Your task to perform on an android device: check google app version Image 0: 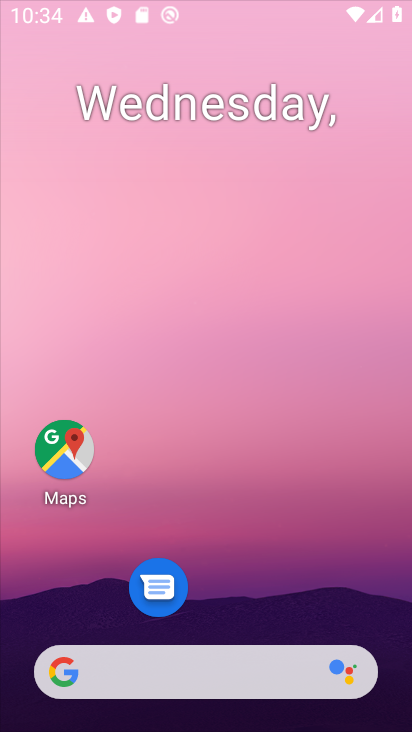
Step 0: press home button
Your task to perform on an android device: check google app version Image 1: 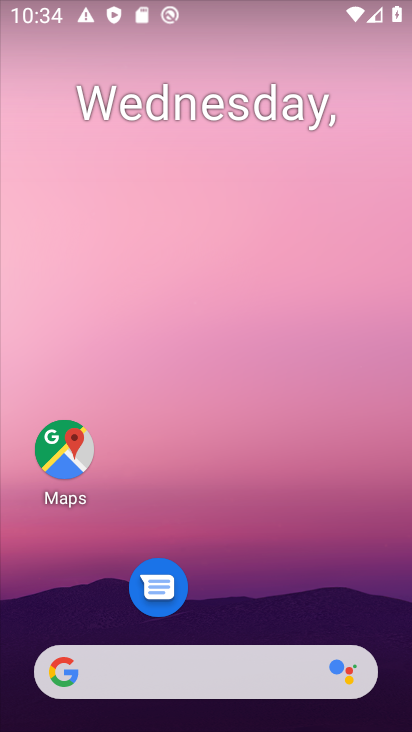
Step 1: drag from (235, 593) to (221, 144)
Your task to perform on an android device: check google app version Image 2: 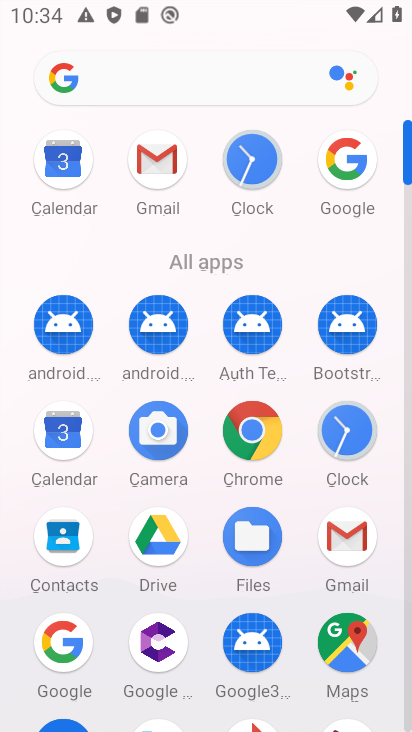
Step 2: click (342, 155)
Your task to perform on an android device: check google app version Image 3: 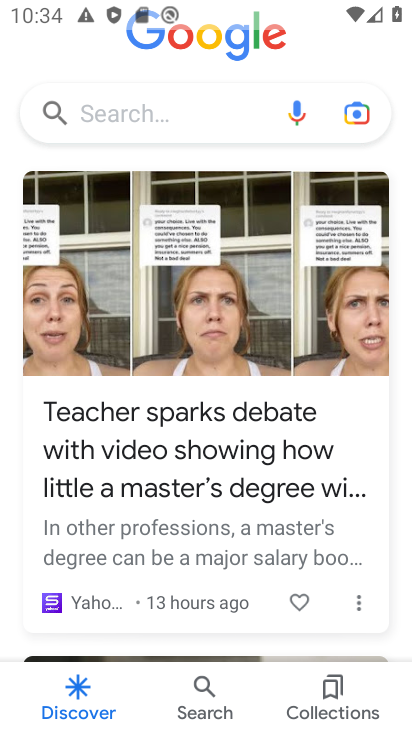
Step 3: drag from (323, 498) to (324, 533)
Your task to perform on an android device: check google app version Image 4: 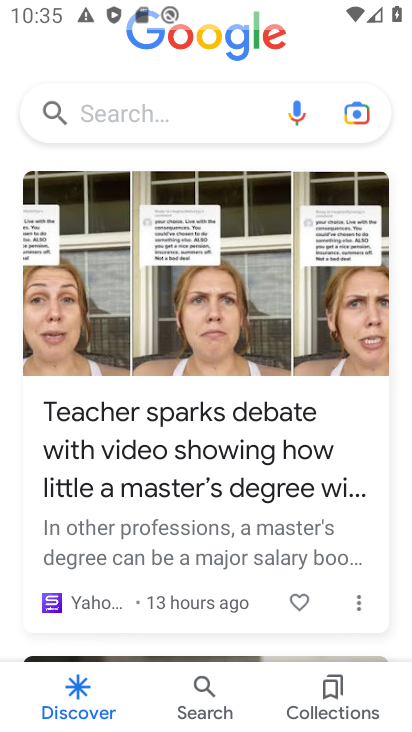
Step 4: drag from (195, 133) to (180, 619)
Your task to perform on an android device: check google app version Image 5: 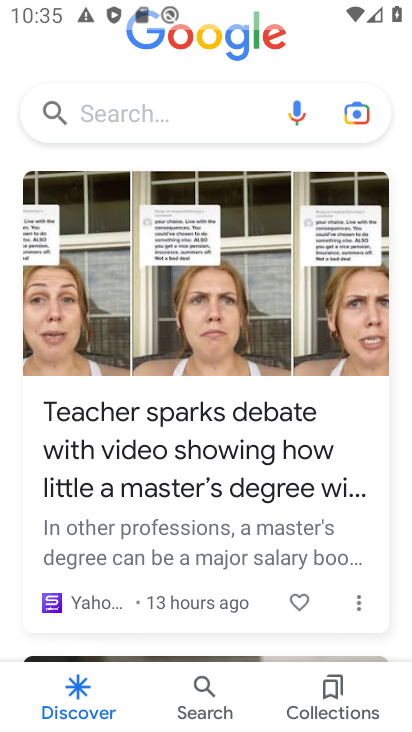
Step 5: drag from (249, 268) to (240, 730)
Your task to perform on an android device: check google app version Image 6: 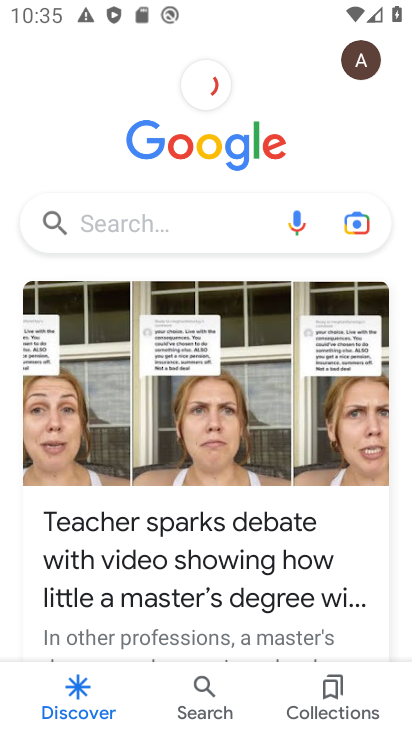
Step 6: click (361, 55)
Your task to perform on an android device: check google app version Image 7: 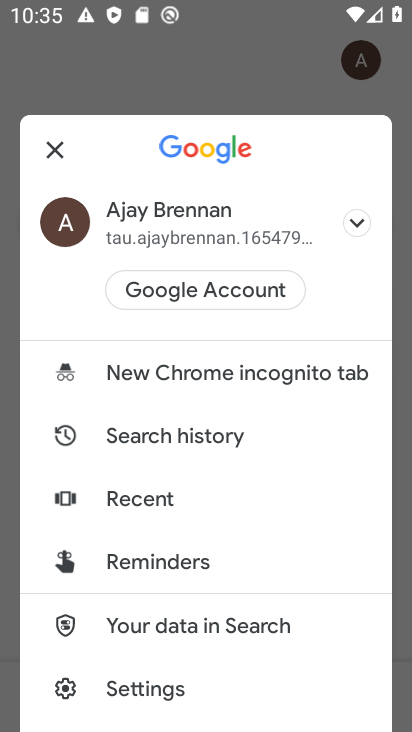
Step 7: click (163, 687)
Your task to perform on an android device: check google app version Image 8: 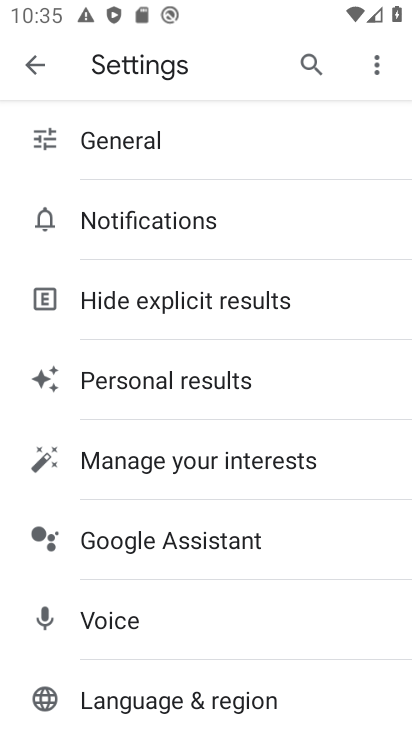
Step 8: click (152, 606)
Your task to perform on an android device: check google app version Image 9: 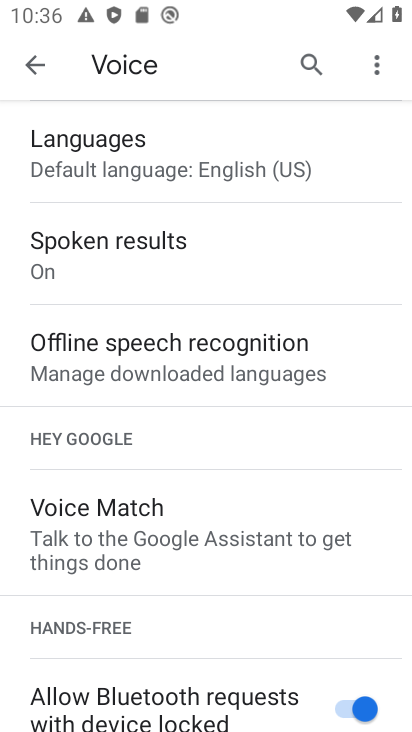
Step 9: drag from (223, 412) to (245, 169)
Your task to perform on an android device: check google app version Image 10: 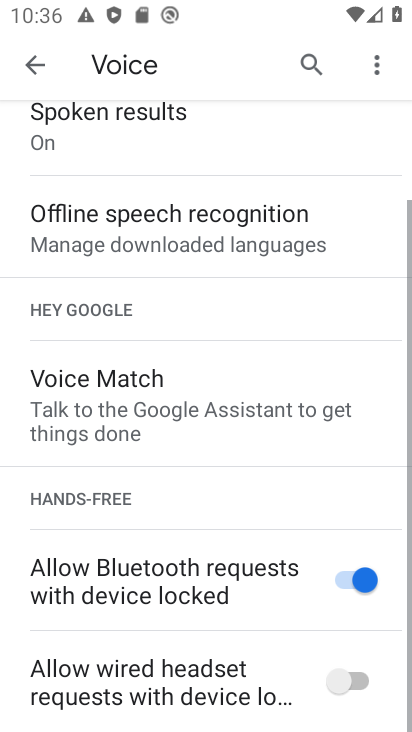
Step 10: click (38, 66)
Your task to perform on an android device: check google app version Image 11: 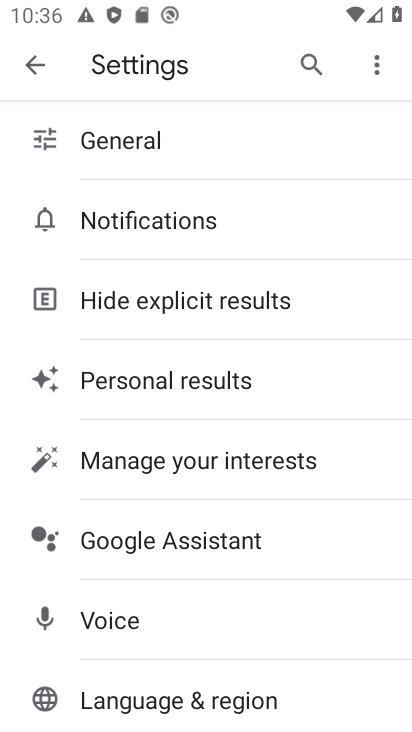
Step 11: drag from (169, 648) to (220, 166)
Your task to perform on an android device: check google app version Image 12: 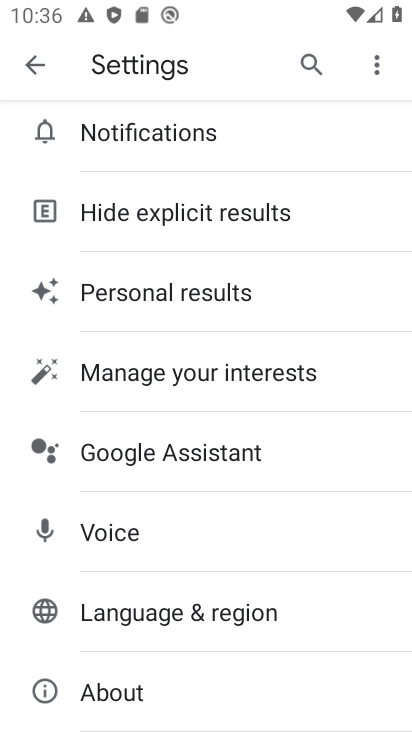
Step 12: click (157, 702)
Your task to perform on an android device: check google app version Image 13: 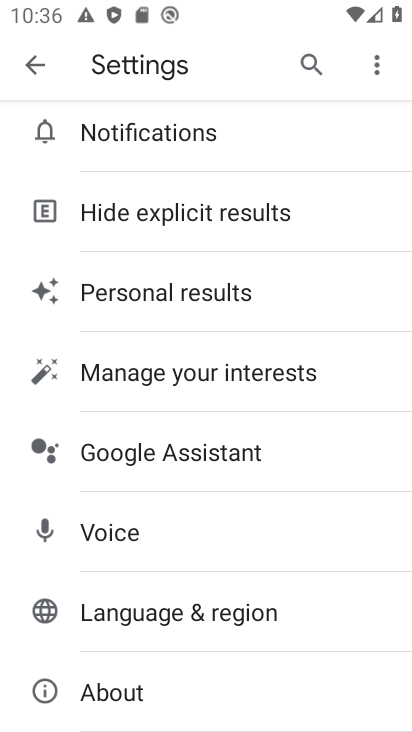
Step 13: click (155, 690)
Your task to perform on an android device: check google app version Image 14: 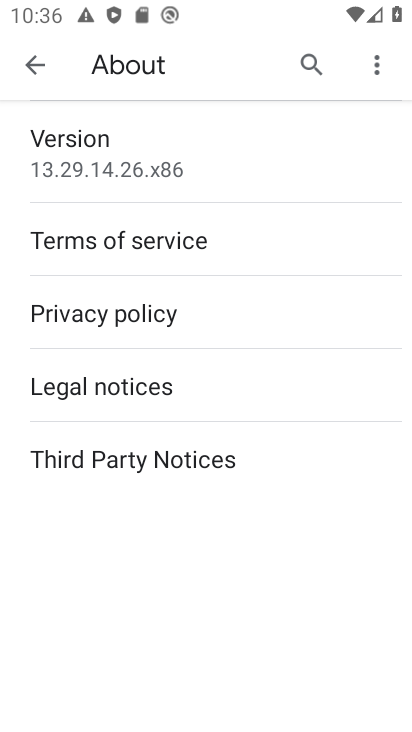
Step 14: task complete